Your task to perform on an android device: Clear all items from cart on costco. Search for "logitech g910" on costco, select the first entry, add it to the cart, then select checkout. Image 0: 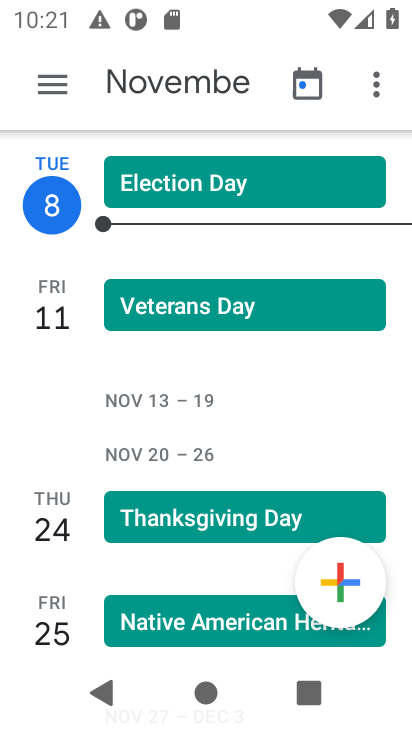
Step 0: press home button
Your task to perform on an android device: Clear all items from cart on costco. Search for "logitech g910" on costco, select the first entry, add it to the cart, then select checkout. Image 1: 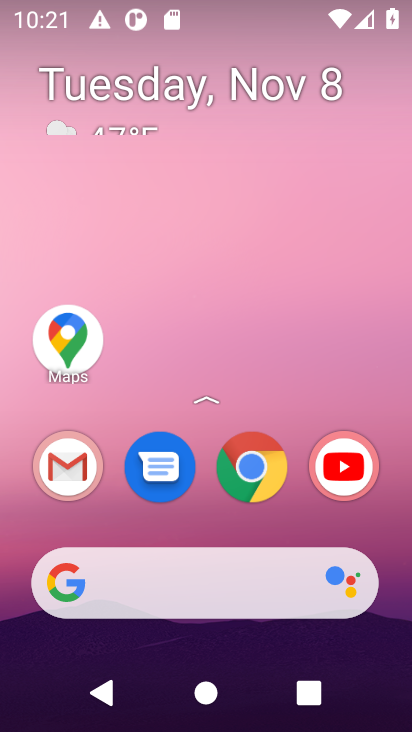
Step 1: click (215, 589)
Your task to perform on an android device: Clear all items from cart on costco. Search for "logitech g910" on costco, select the first entry, add it to the cart, then select checkout. Image 2: 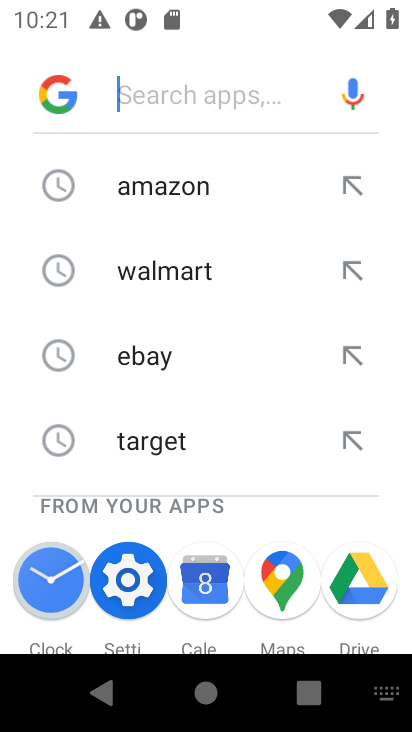
Step 2: type "costco"
Your task to perform on an android device: Clear all items from cart on costco. Search for "logitech g910" on costco, select the first entry, add it to the cart, then select checkout. Image 3: 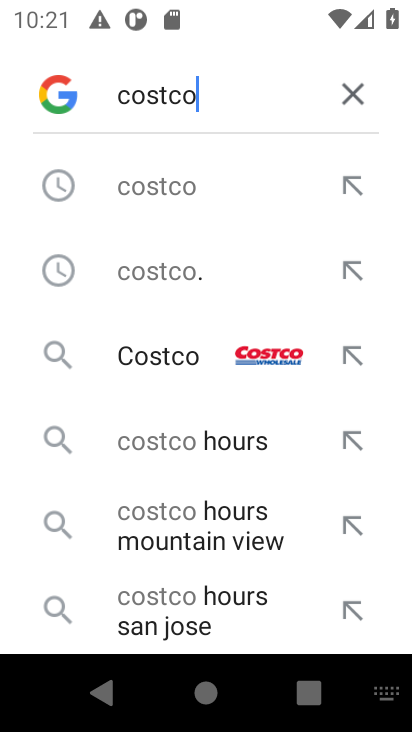
Step 3: click (245, 179)
Your task to perform on an android device: Clear all items from cart on costco. Search for "logitech g910" on costco, select the first entry, add it to the cart, then select checkout. Image 4: 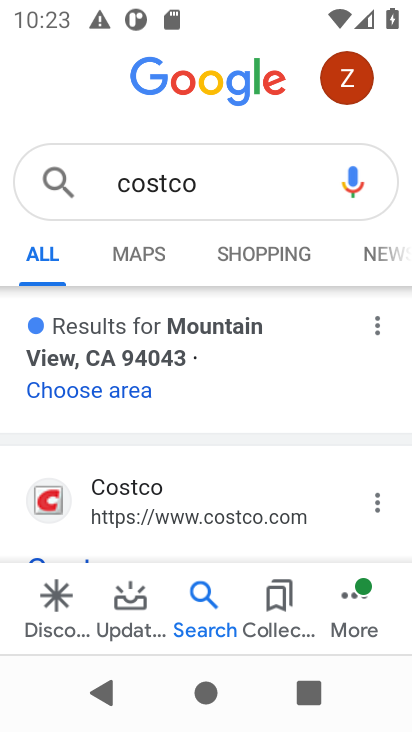
Step 4: click (270, 509)
Your task to perform on an android device: Clear all items from cart on costco. Search for "logitech g910" on costco, select the first entry, add it to the cart, then select checkout. Image 5: 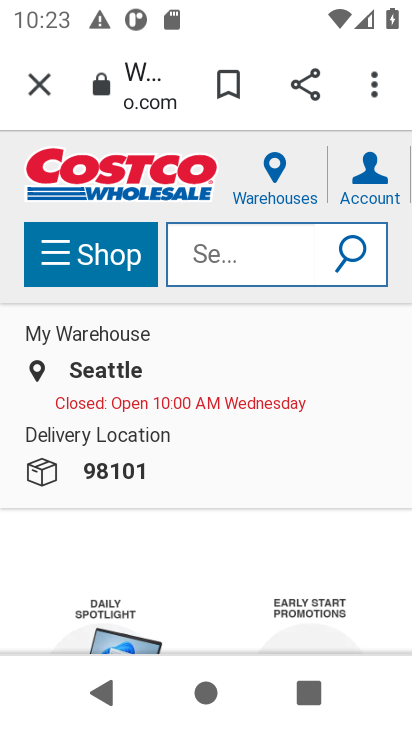
Step 5: task complete